Your task to perform on an android device: open app "LinkedIn" (install if not already installed) Image 0: 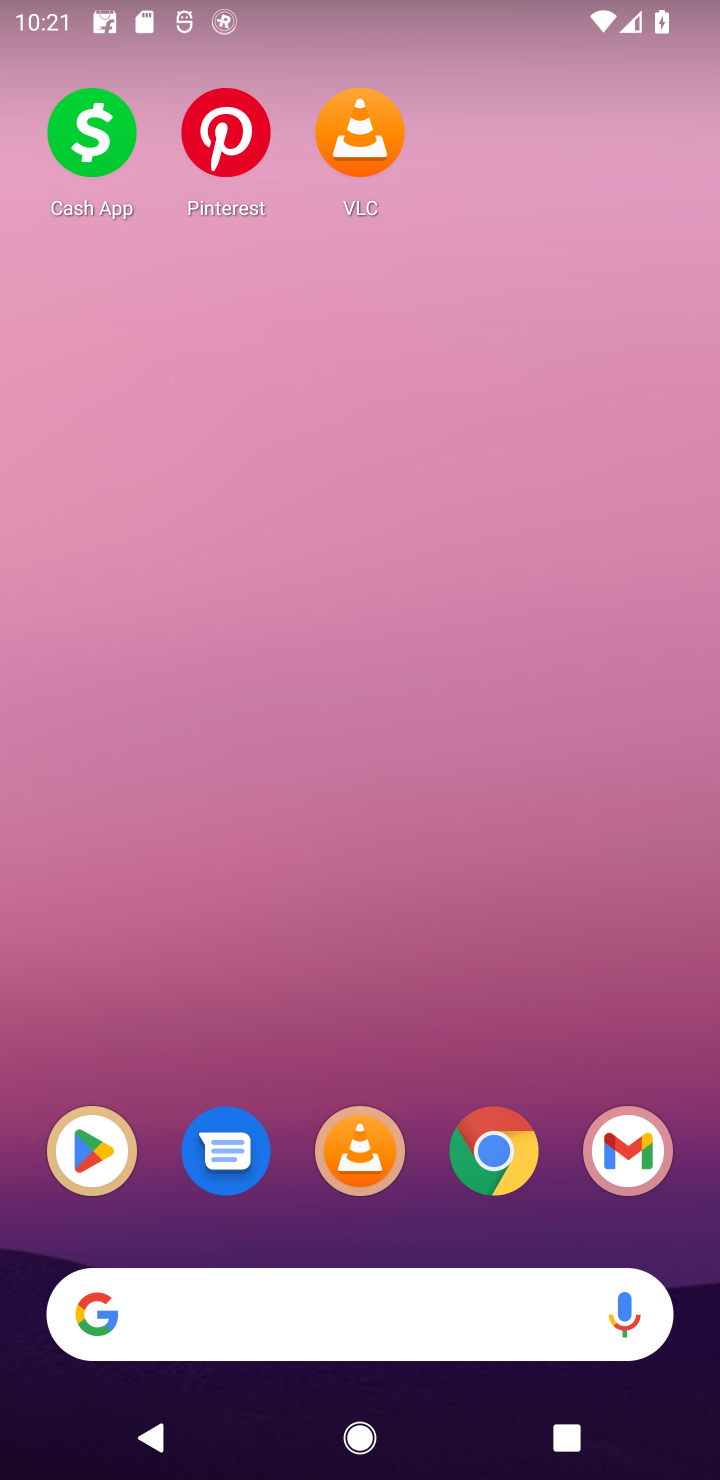
Step 0: click (132, 1140)
Your task to perform on an android device: open app "LinkedIn" (install if not already installed) Image 1: 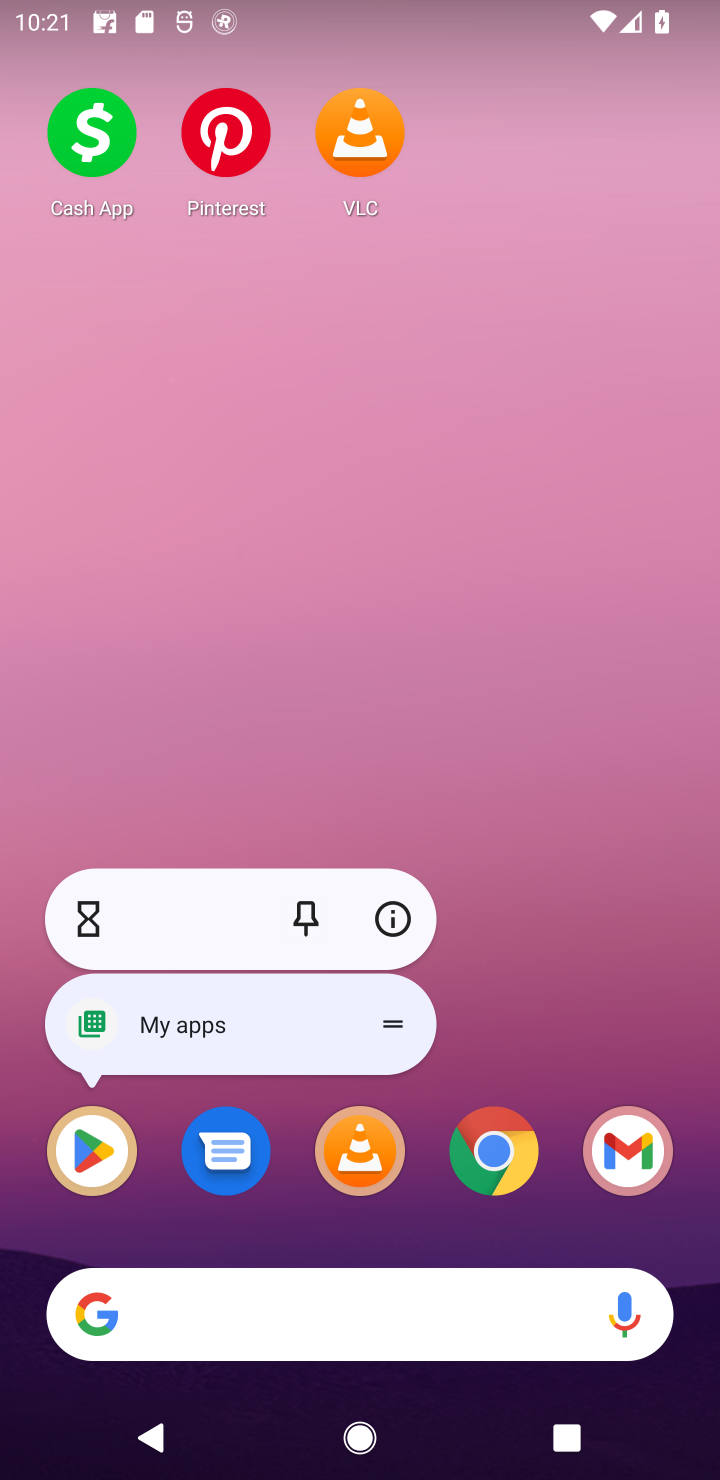
Step 1: click (132, 1140)
Your task to perform on an android device: open app "LinkedIn" (install if not already installed) Image 2: 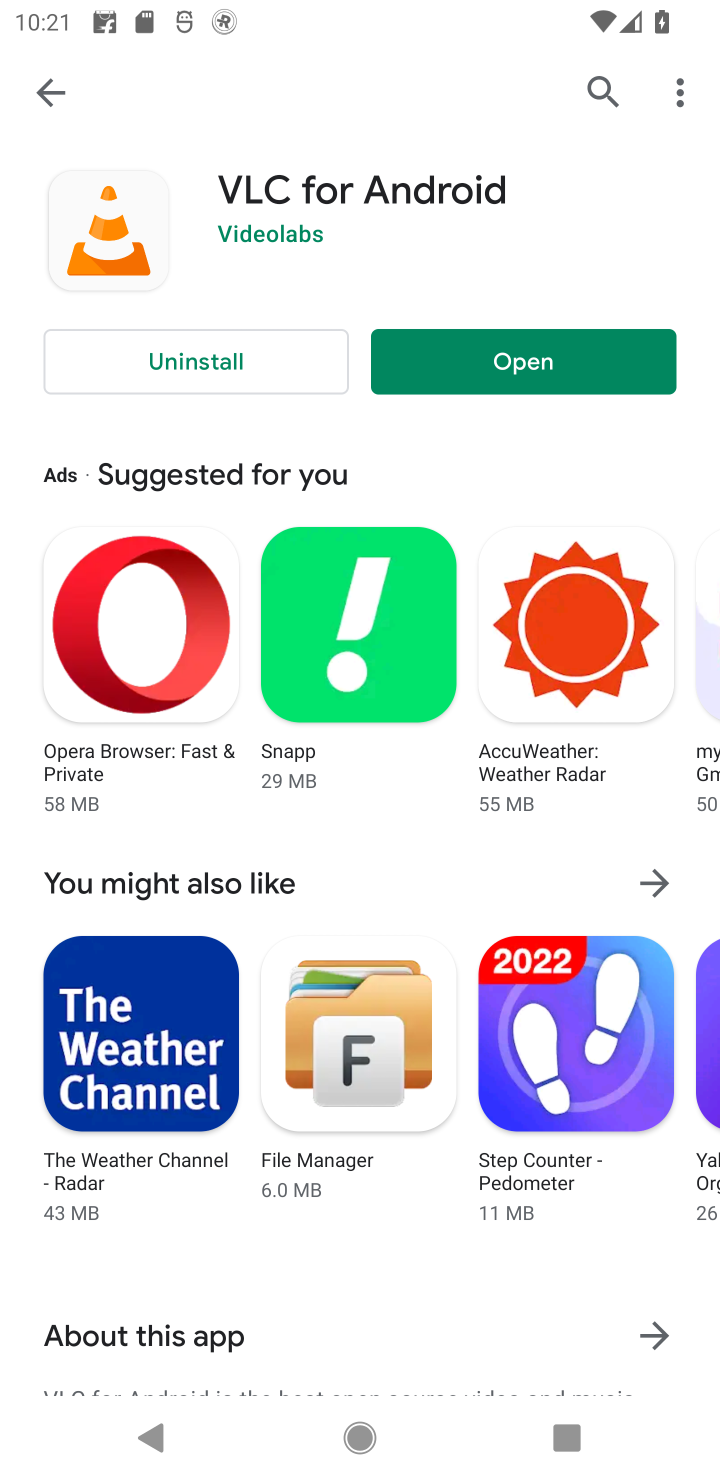
Step 2: click (661, 99)
Your task to perform on an android device: open app "LinkedIn" (install if not already installed) Image 3: 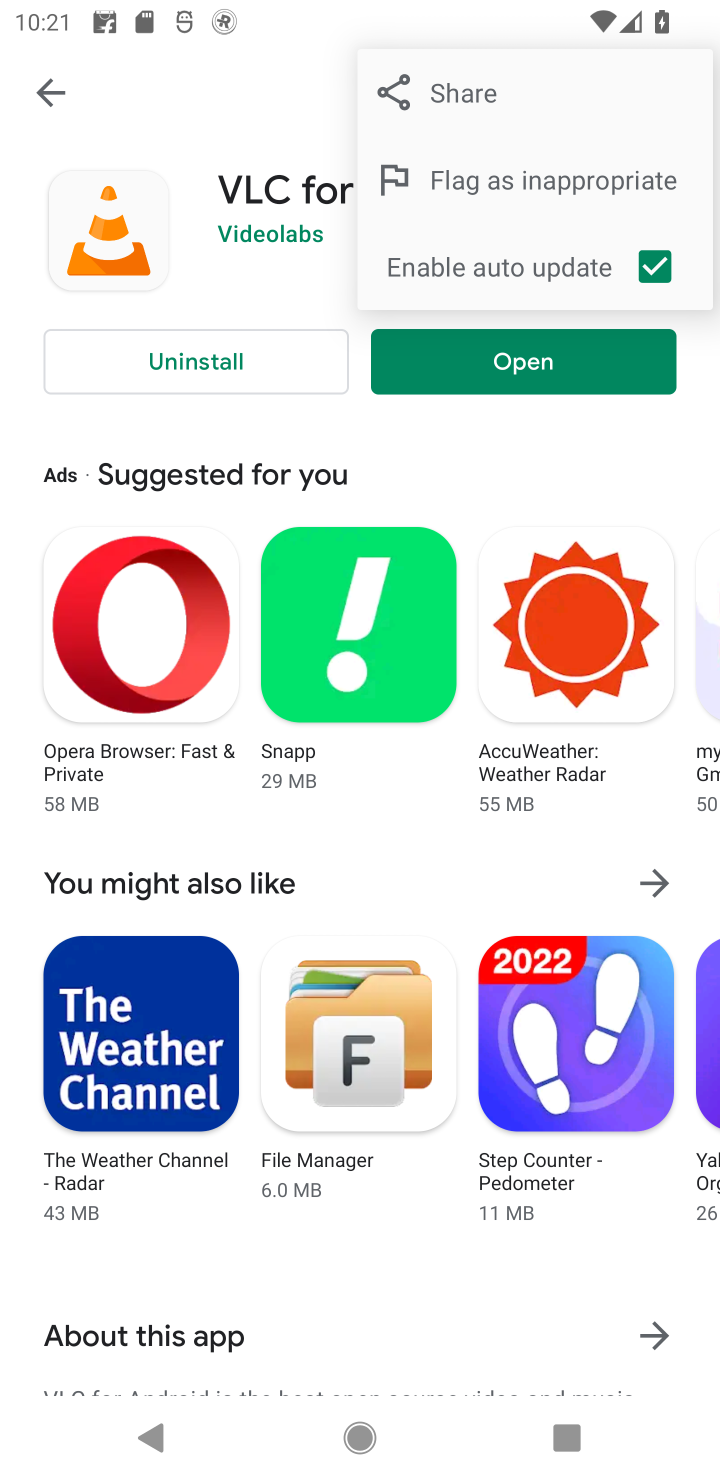
Step 3: click (614, 97)
Your task to perform on an android device: open app "LinkedIn" (install if not already installed) Image 4: 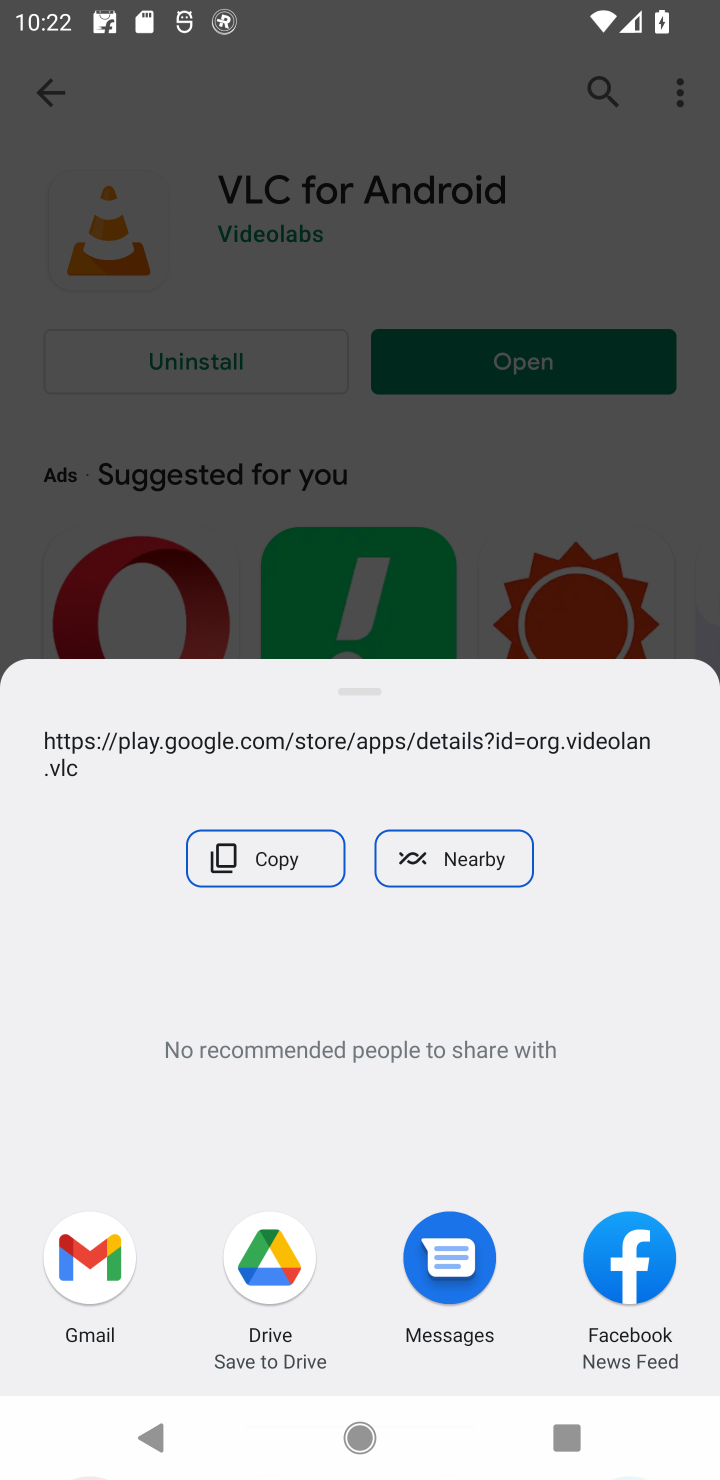
Step 4: click (163, 1444)
Your task to perform on an android device: open app "LinkedIn" (install if not already installed) Image 5: 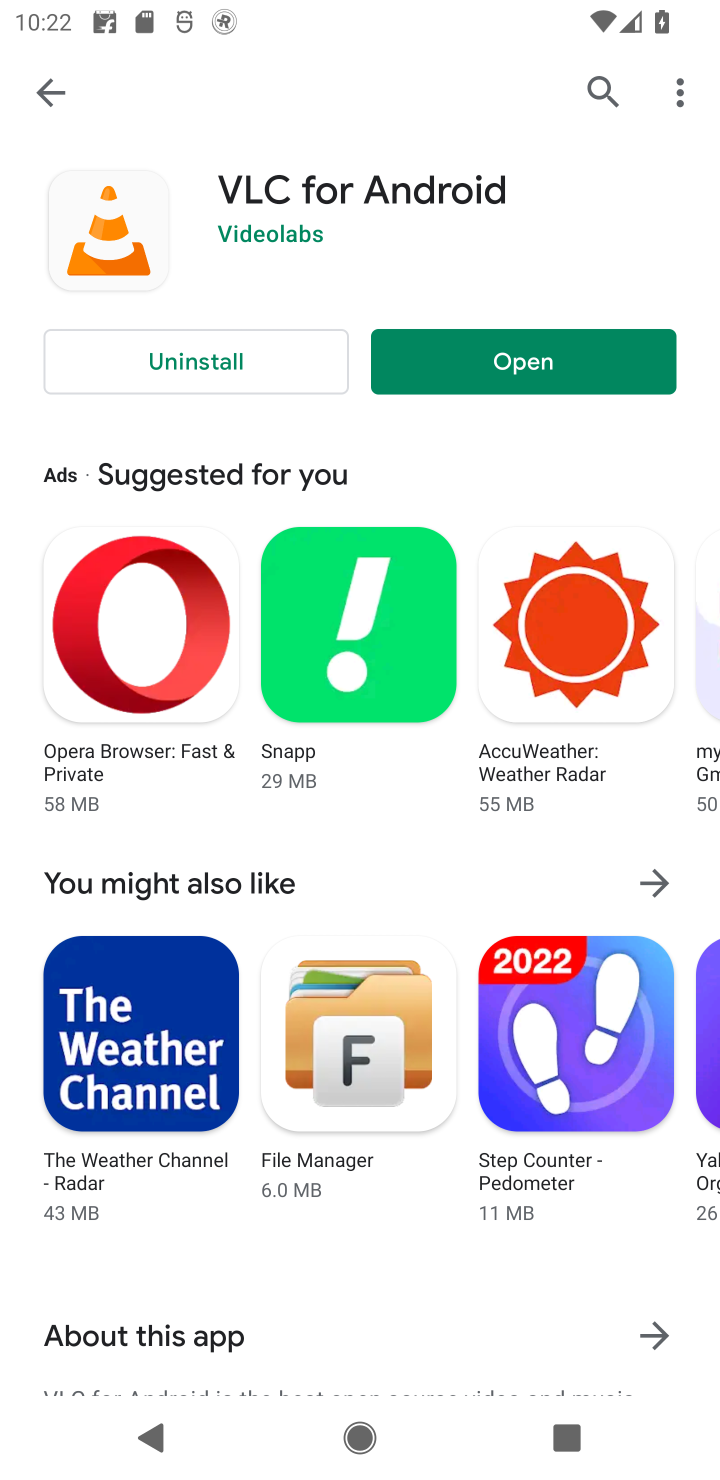
Step 5: click (576, 86)
Your task to perform on an android device: open app "LinkedIn" (install if not already installed) Image 6: 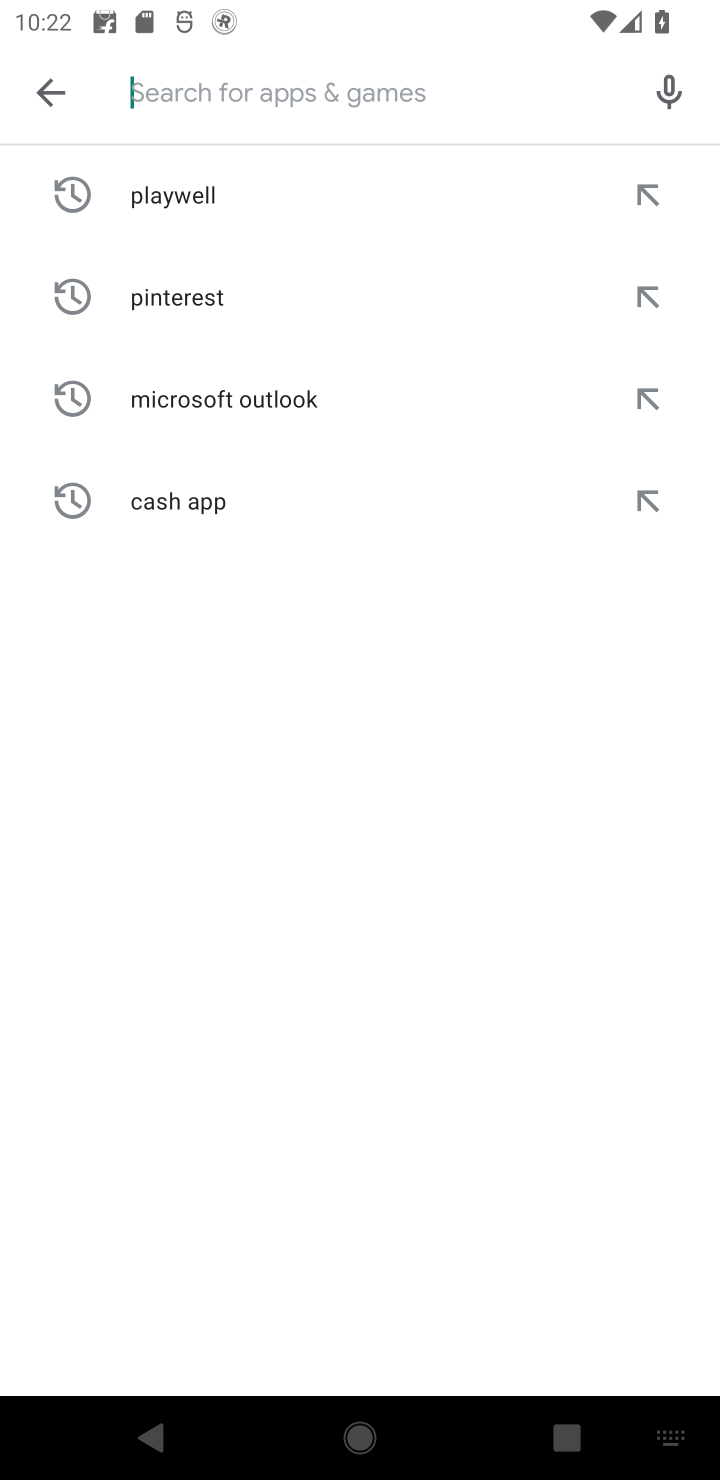
Step 6: type "LinkedIn"
Your task to perform on an android device: open app "LinkedIn" (install if not already installed) Image 7: 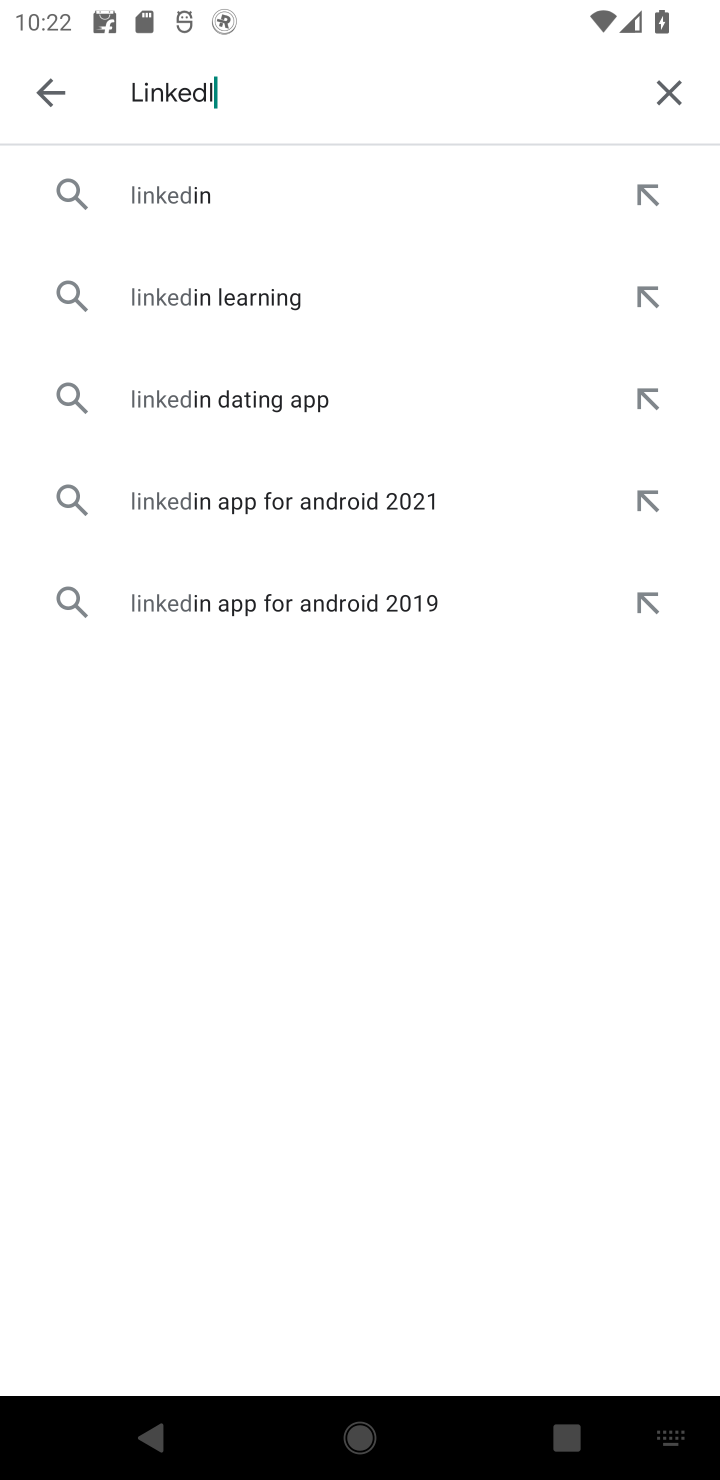
Step 7: type ""
Your task to perform on an android device: open app "LinkedIn" (install if not already installed) Image 8: 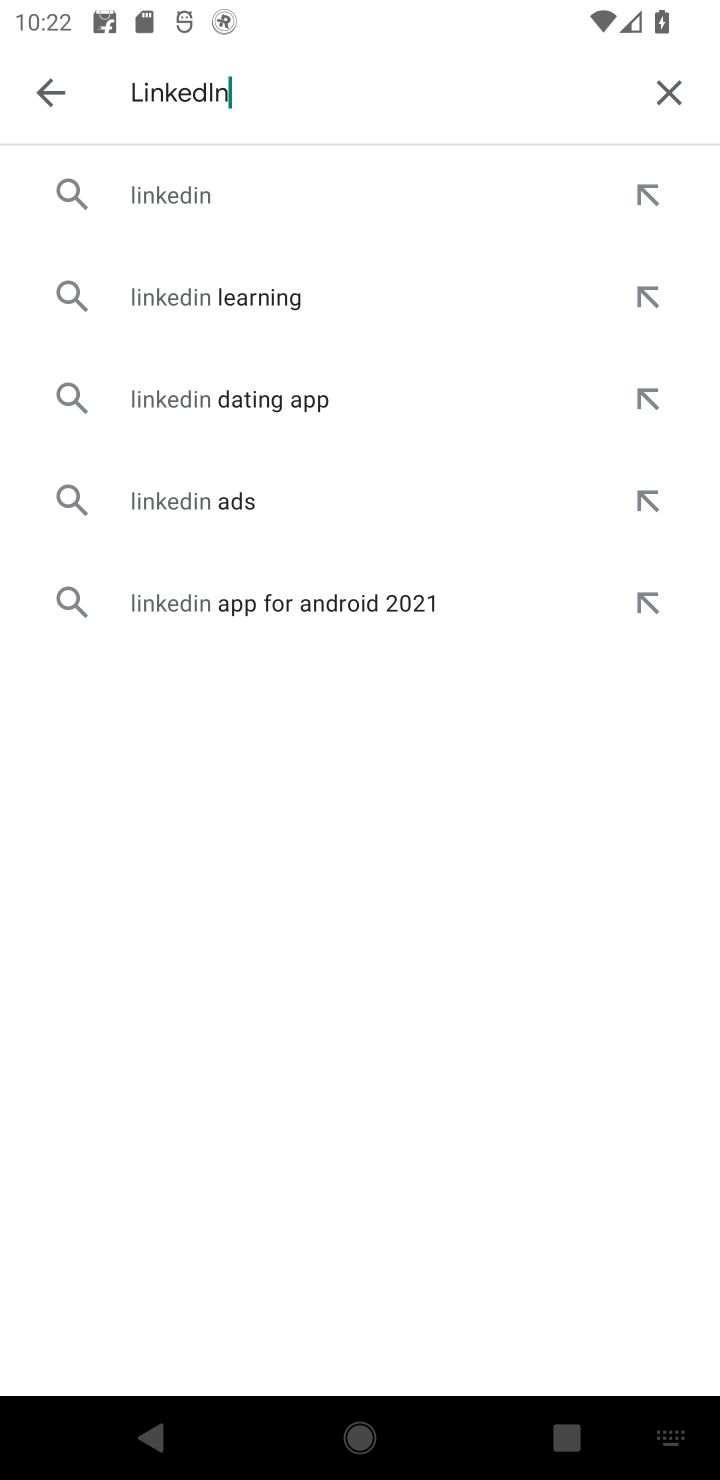
Step 8: click (225, 213)
Your task to perform on an android device: open app "LinkedIn" (install if not already installed) Image 9: 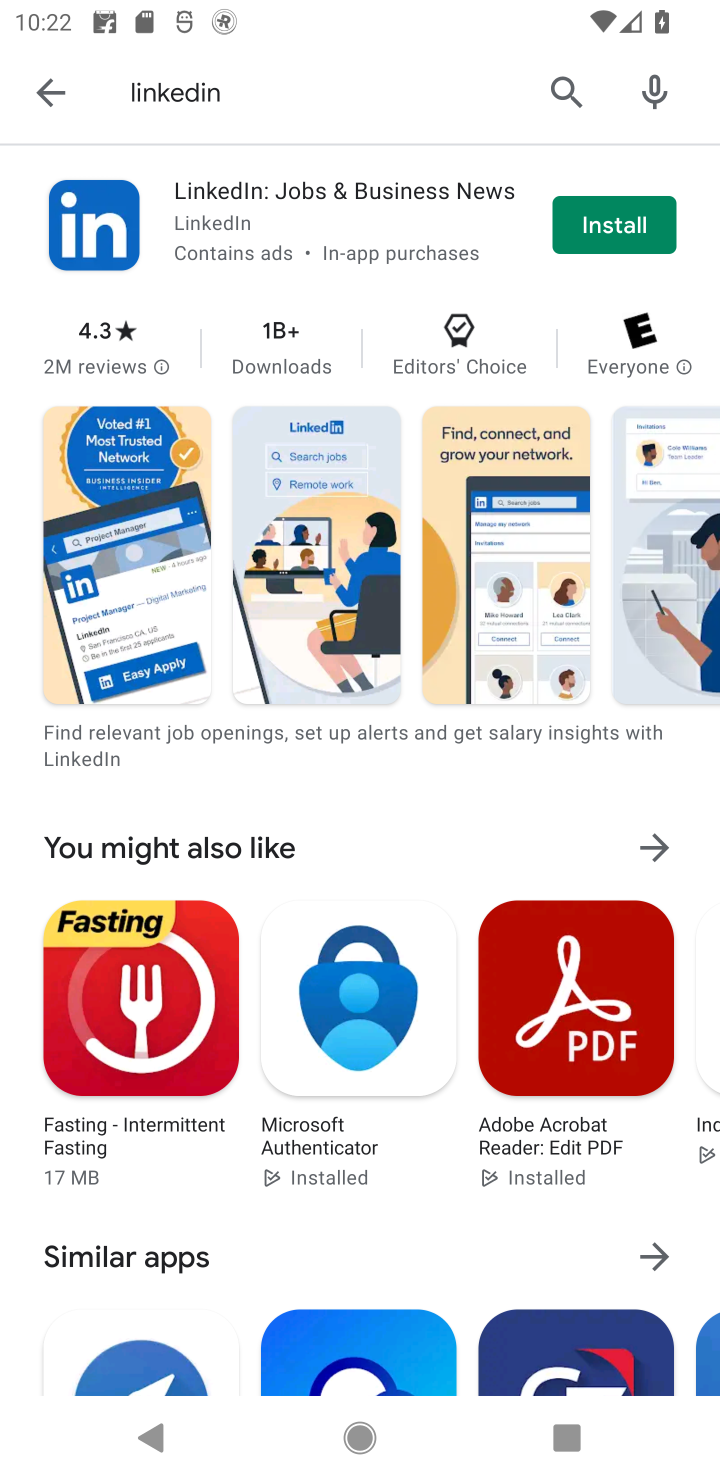
Step 9: click (601, 229)
Your task to perform on an android device: open app "LinkedIn" (install if not already installed) Image 10: 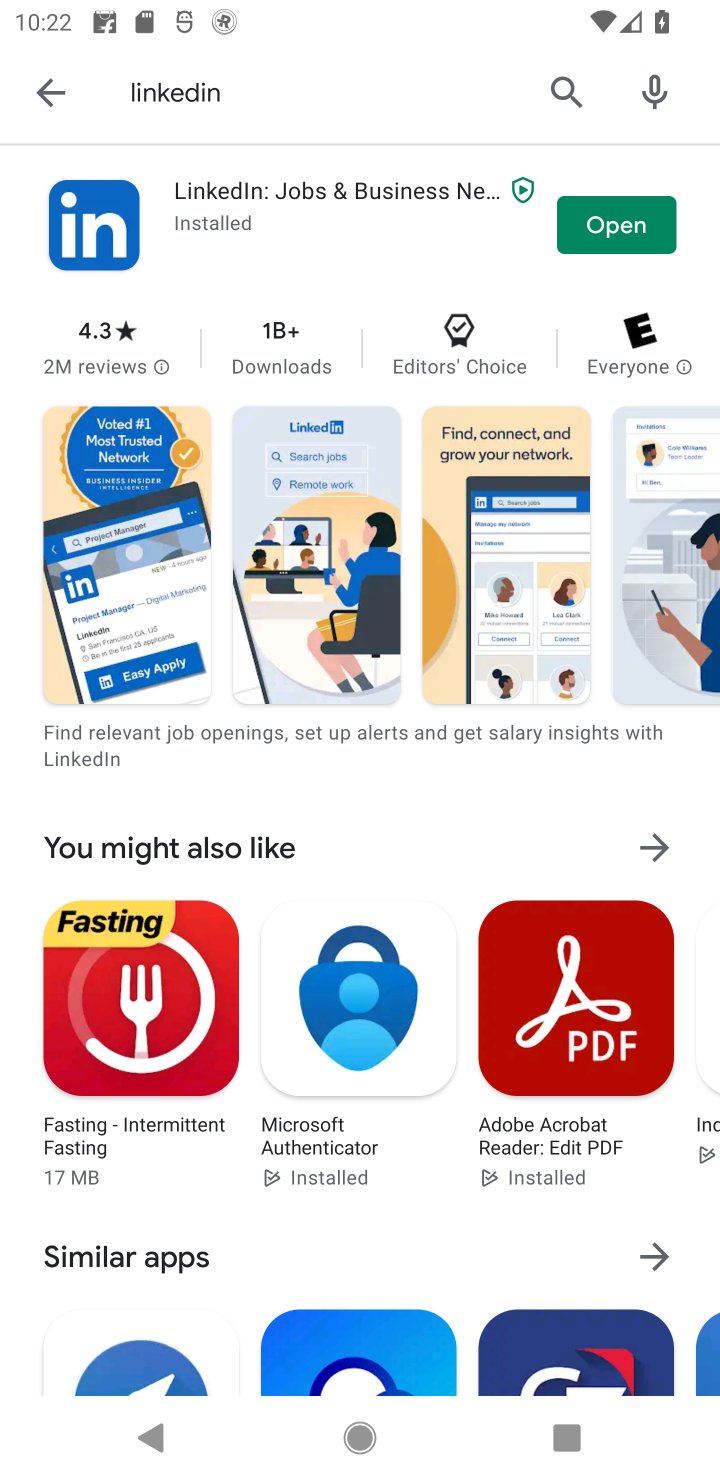
Step 10: click (579, 247)
Your task to perform on an android device: open app "LinkedIn" (install if not already installed) Image 11: 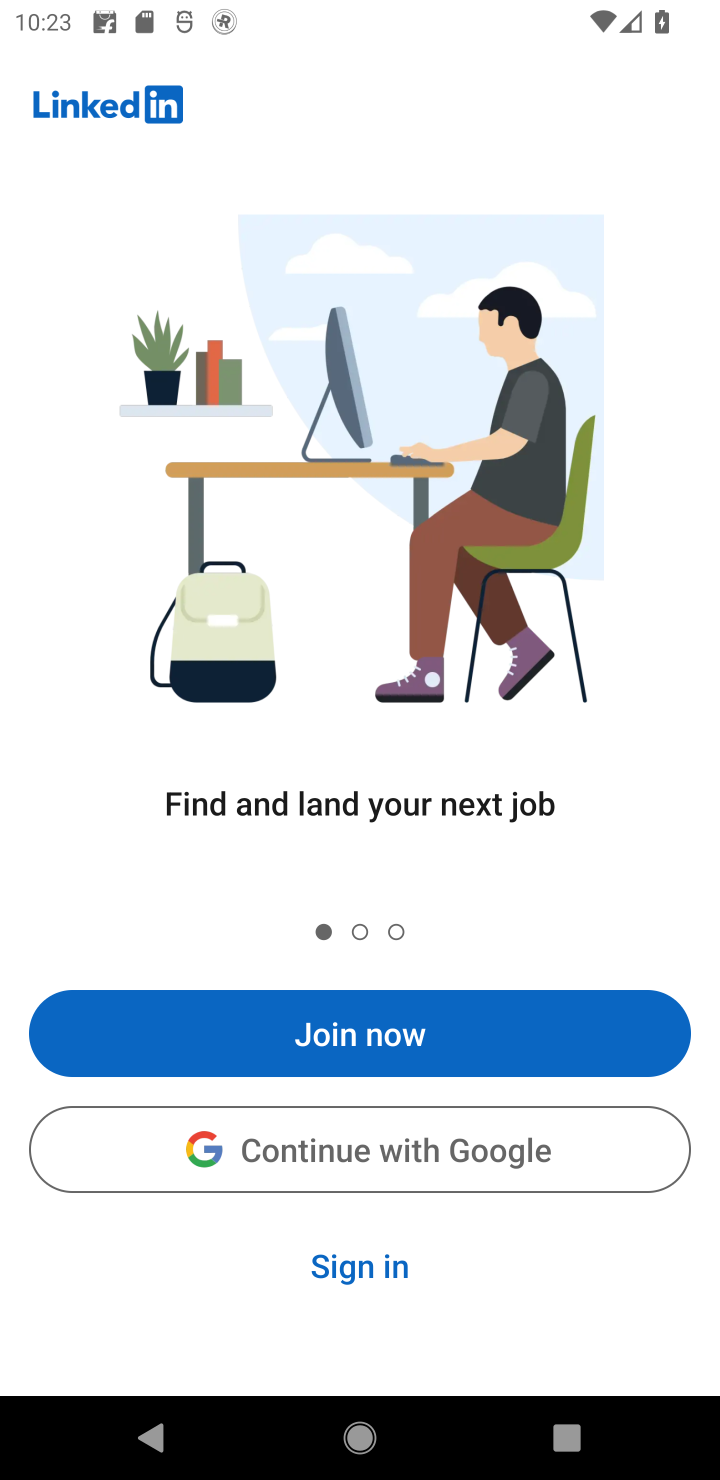
Step 11: task complete